Your task to perform on an android device: see creations saved in the google photos Image 0: 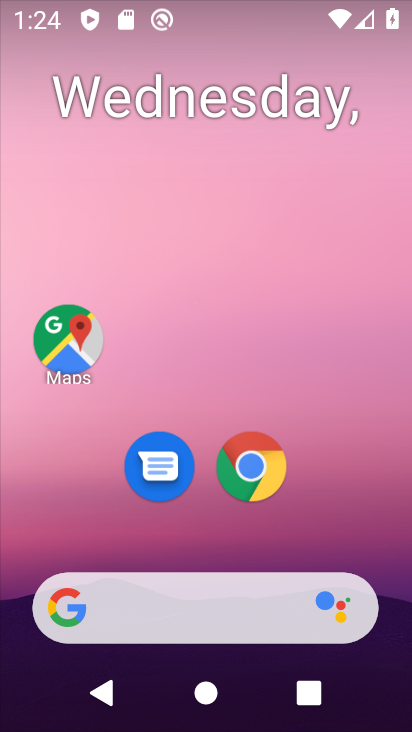
Step 0: drag from (203, 530) to (180, 8)
Your task to perform on an android device: see creations saved in the google photos Image 1: 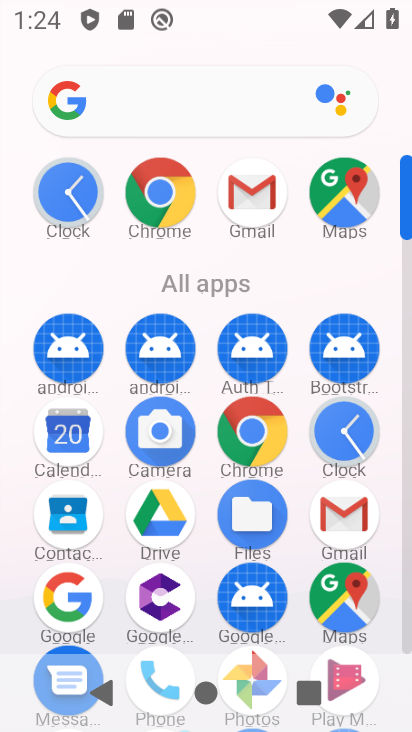
Step 1: drag from (211, 633) to (208, 16)
Your task to perform on an android device: see creations saved in the google photos Image 2: 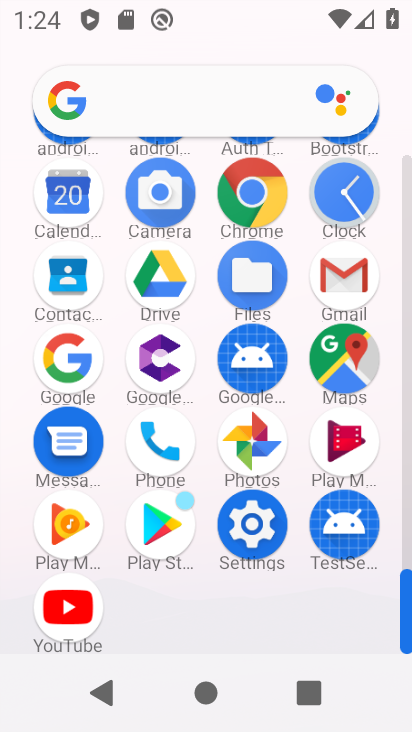
Step 2: click (252, 422)
Your task to perform on an android device: see creations saved in the google photos Image 3: 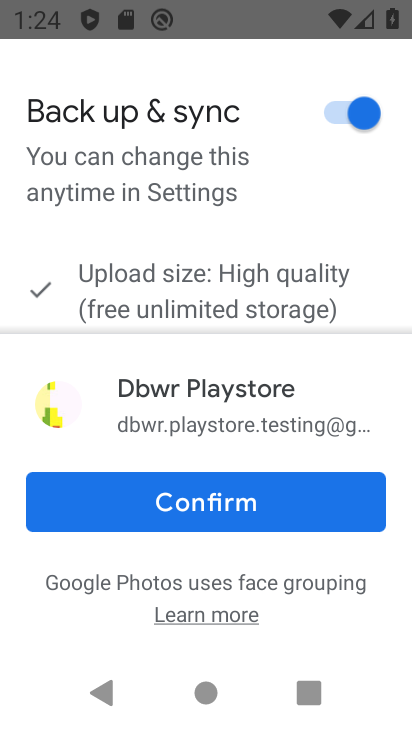
Step 3: click (236, 517)
Your task to perform on an android device: see creations saved in the google photos Image 4: 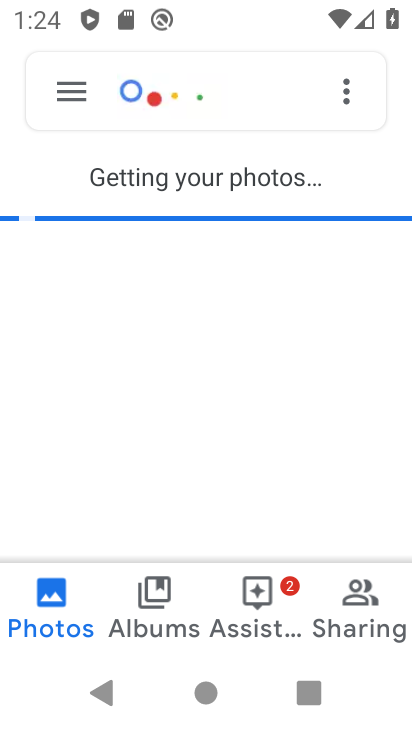
Step 4: click (154, 585)
Your task to perform on an android device: see creations saved in the google photos Image 5: 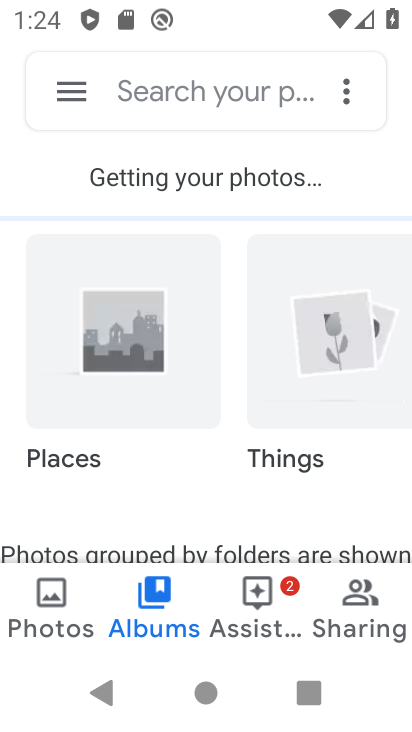
Step 5: click (79, 95)
Your task to perform on an android device: see creations saved in the google photos Image 6: 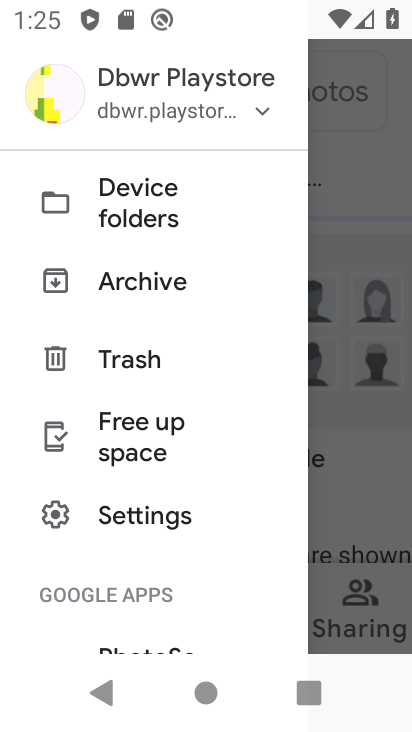
Step 6: click (149, 504)
Your task to perform on an android device: see creations saved in the google photos Image 7: 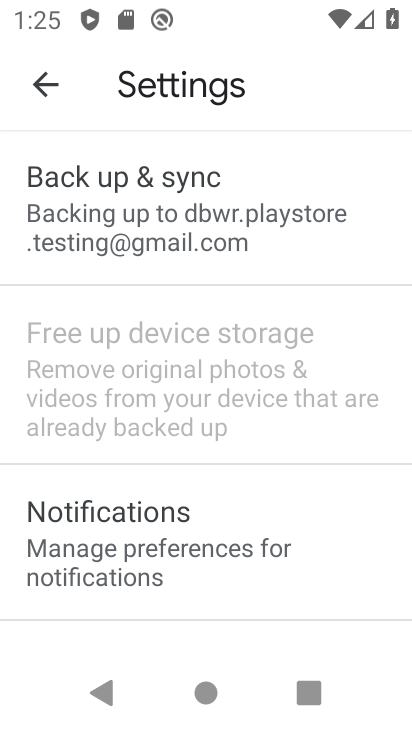
Step 7: task complete